Your task to perform on an android device: turn off wifi Image 0: 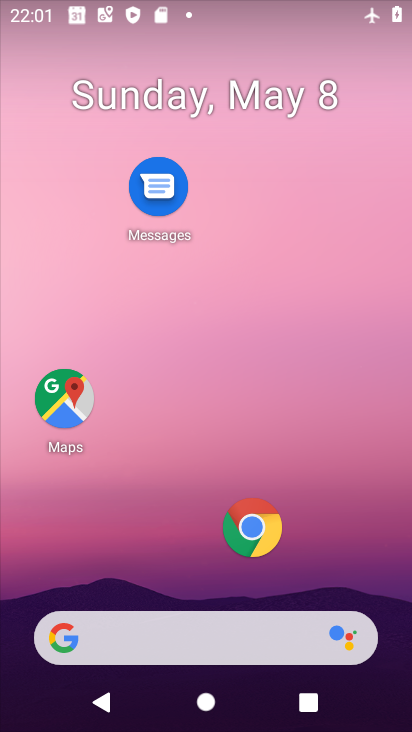
Step 0: drag from (190, 588) to (213, 0)
Your task to perform on an android device: turn off wifi Image 1: 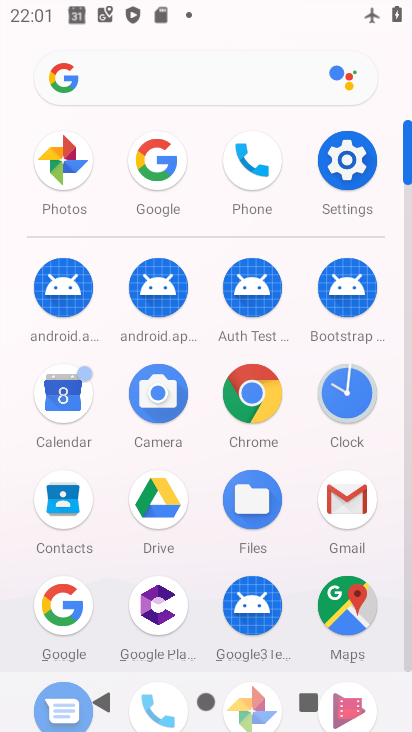
Step 1: click (342, 155)
Your task to perform on an android device: turn off wifi Image 2: 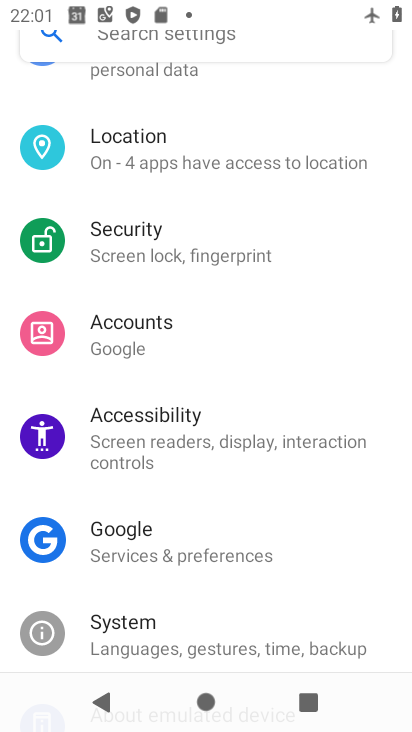
Step 2: drag from (107, 115) to (249, 719)
Your task to perform on an android device: turn off wifi Image 3: 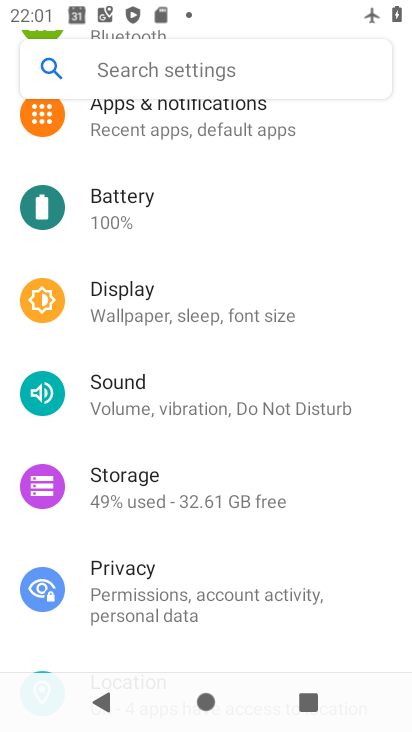
Step 3: drag from (111, 191) to (242, 726)
Your task to perform on an android device: turn off wifi Image 4: 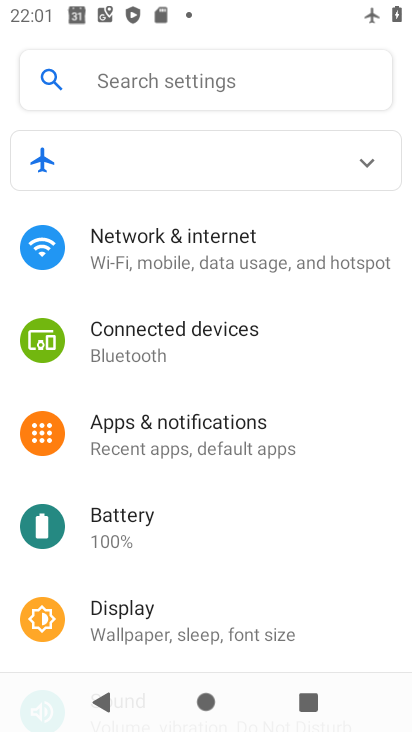
Step 4: click (153, 250)
Your task to perform on an android device: turn off wifi Image 5: 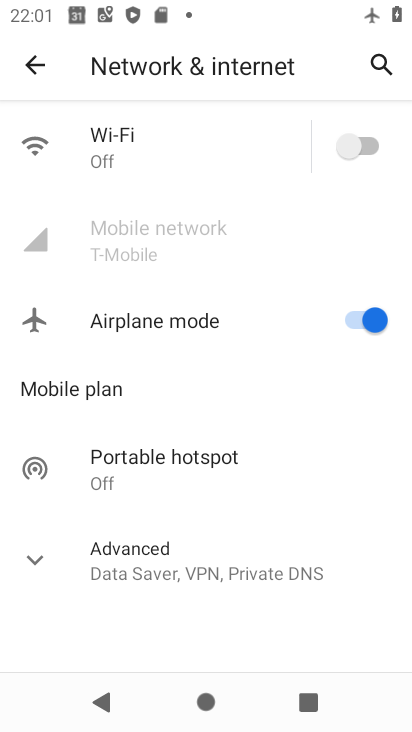
Step 5: task complete